Your task to perform on an android device: Go to Android settings Image 0: 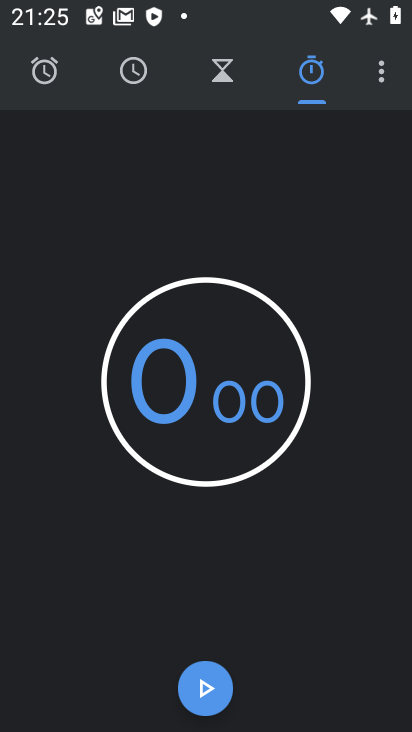
Step 0: press home button
Your task to perform on an android device: Go to Android settings Image 1: 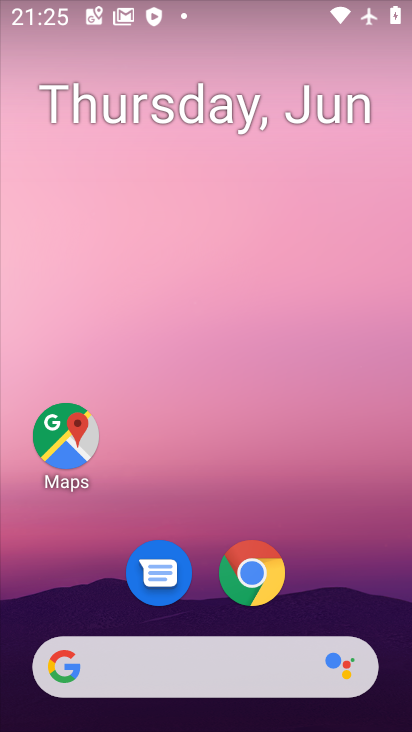
Step 1: drag from (312, 592) to (327, 214)
Your task to perform on an android device: Go to Android settings Image 2: 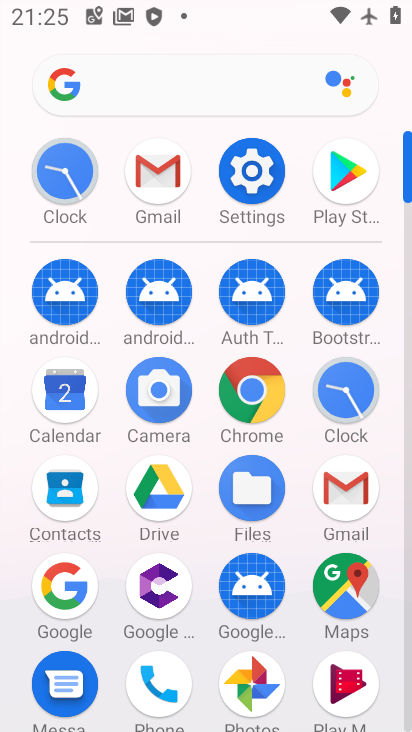
Step 2: click (252, 153)
Your task to perform on an android device: Go to Android settings Image 3: 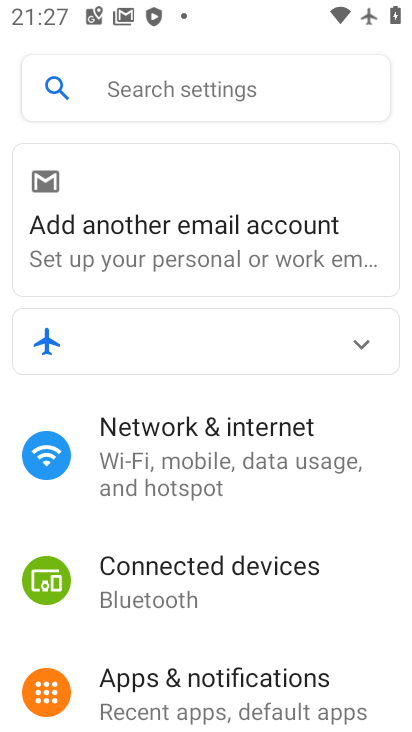
Step 3: task complete